Your task to perform on an android device: find which apps use the phone's location Image 0: 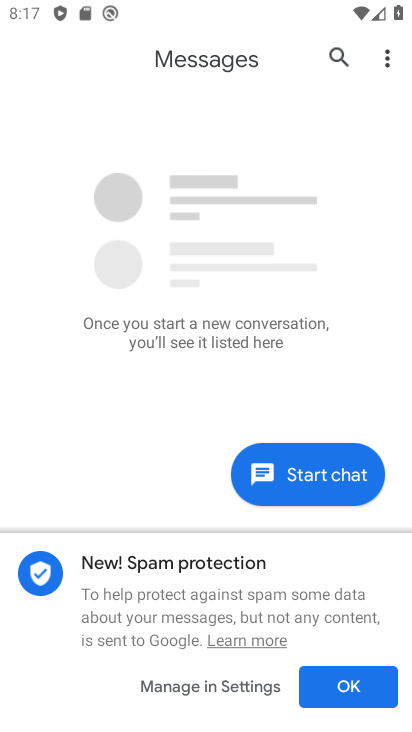
Step 0: press home button
Your task to perform on an android device: find which apps use the phone's location Image 1: 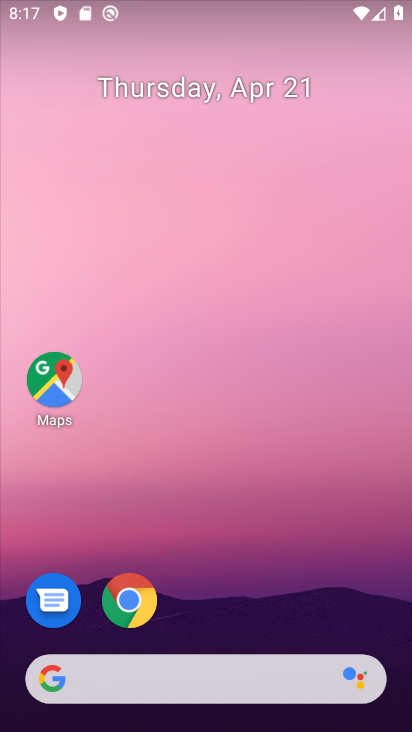
Step 1: drag from (57, 548) to (183, 204)
Your task to perform on an android device: find which apps use the phone's location Image 2: 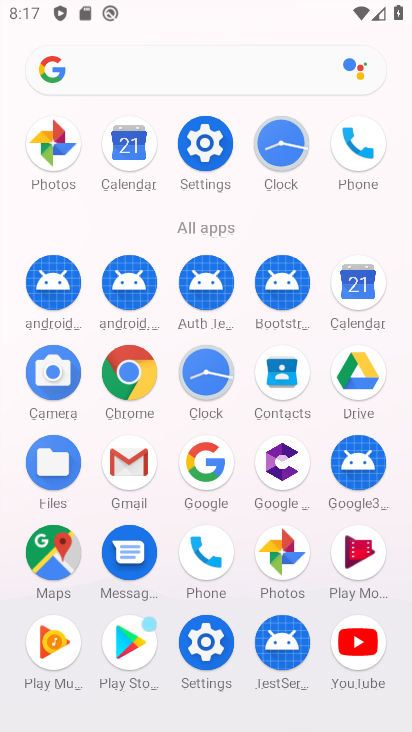
Step 2: click (208, 138)
Your task to perform on an android device: find which apps use the phone's location Image 3: 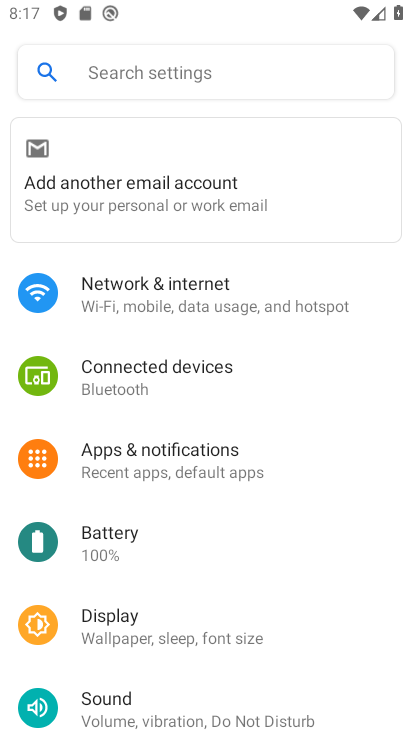
Step 3: click (118, 463)
Your task to perform on an android device: find which apps use the phone's location Image 4: 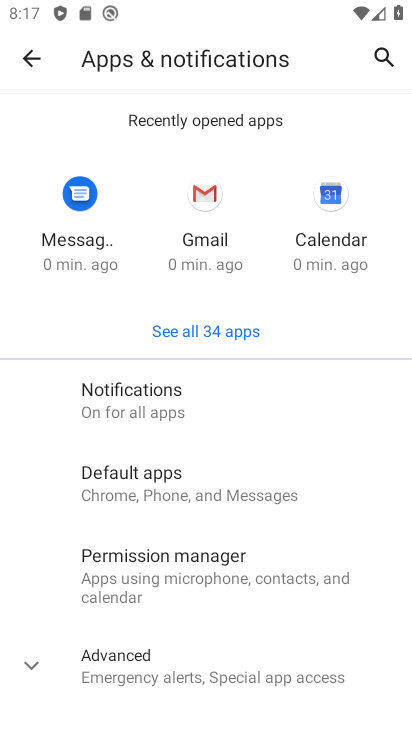
Step 4: click (184, 412)
Your task to perform on an android device: find which apps use the phone's location Image 5: 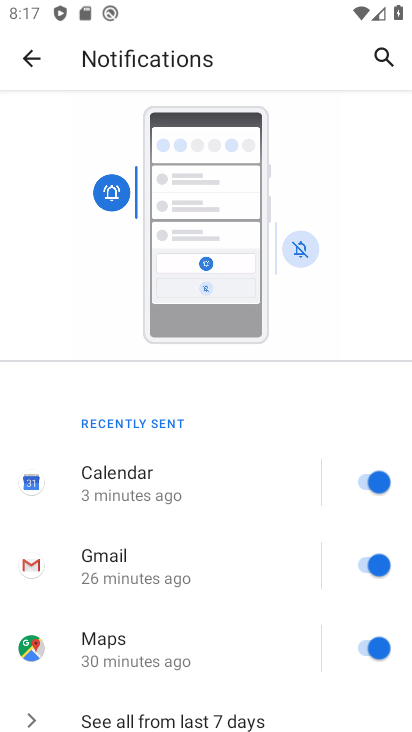
Step 5: press back button
Your task to perform on an android device: find which apps use the phone's location Image 6: 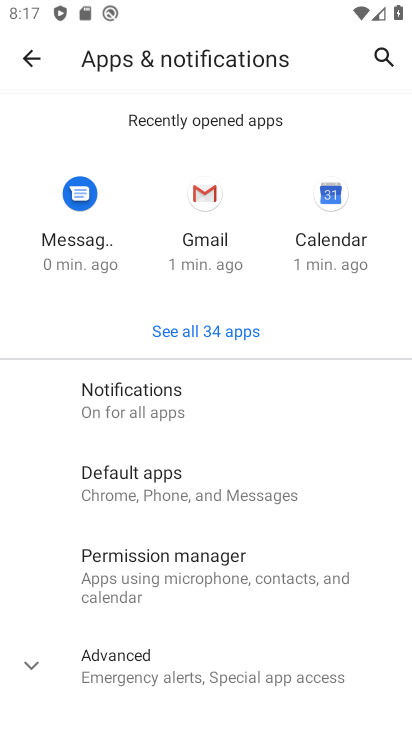
Step 6: click (138, 566)
Your task to perform on an android device: find which apps use the phone's location Image 7: 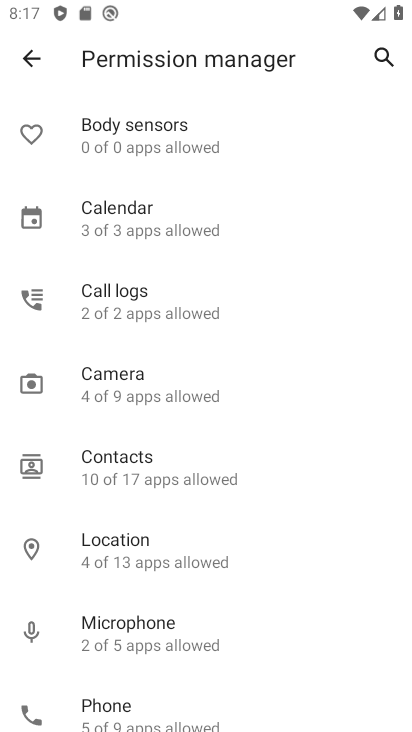
Step 7: drag from (119, 697) to (148, 407)
Your task to perform on an android device: find which apps use the phone's location Image 8: 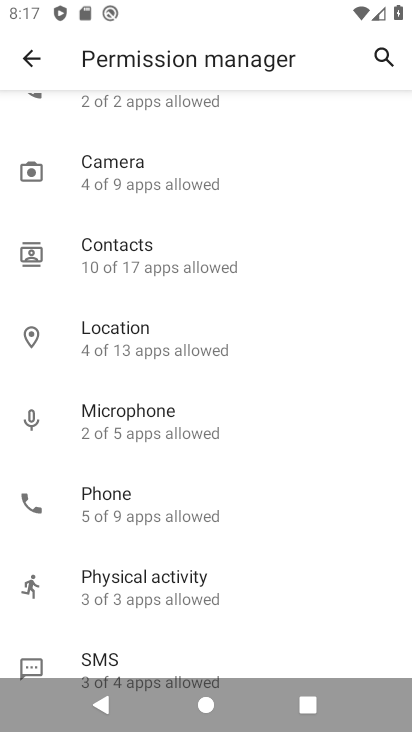
Step 8: click (125, 341)
Your task to perform on an android device: find which apps use the phone's location Image 9: 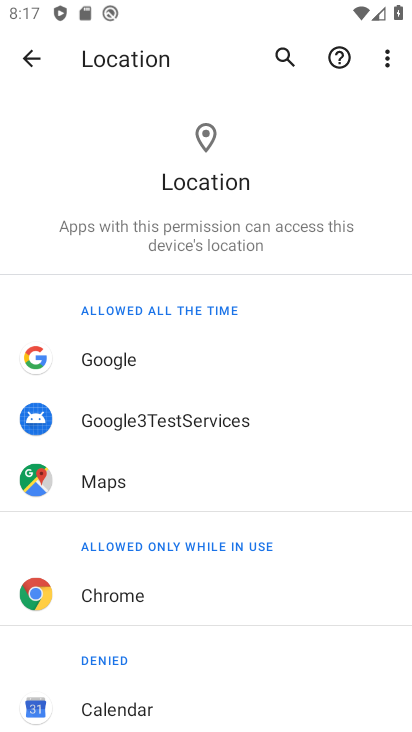
Step 9: task complete